Your task to perform on an android device: turn off sleep mode Image 0: 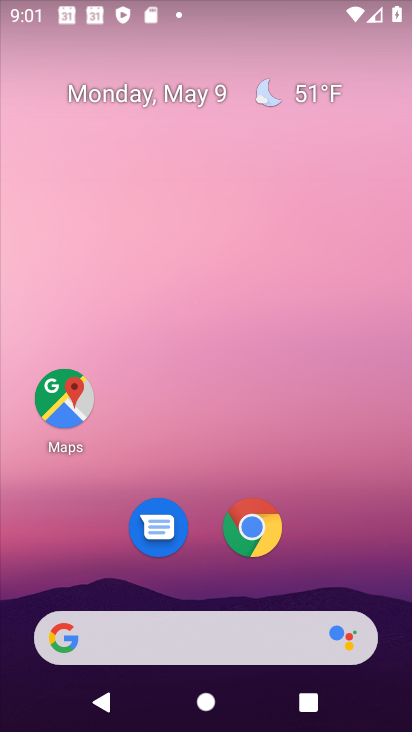
Step 0: drag from (210, 561) to (279, 49)
Your task to perform on an android device: turn off sleep mode Image 1: 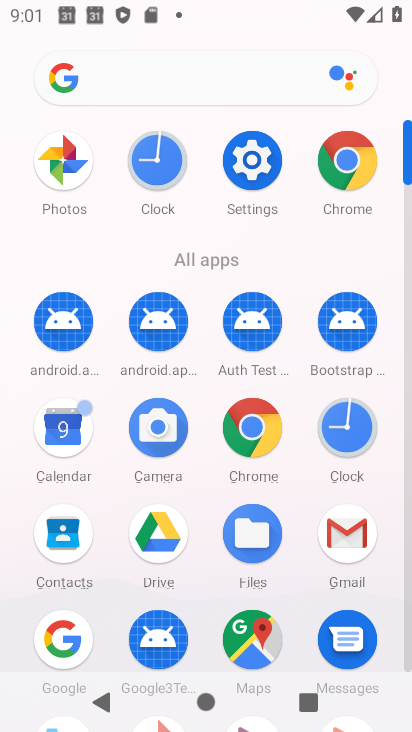
Step 1: click (261, 188)
Your task to perform on an android device: turn off sleep mode Image 2: 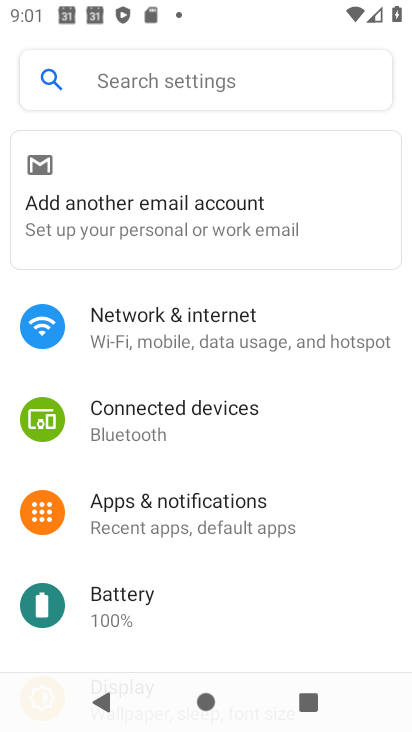
Step 2: click (261, 98)
Your task to perform on an android device: turn off sleep mode Image 3: 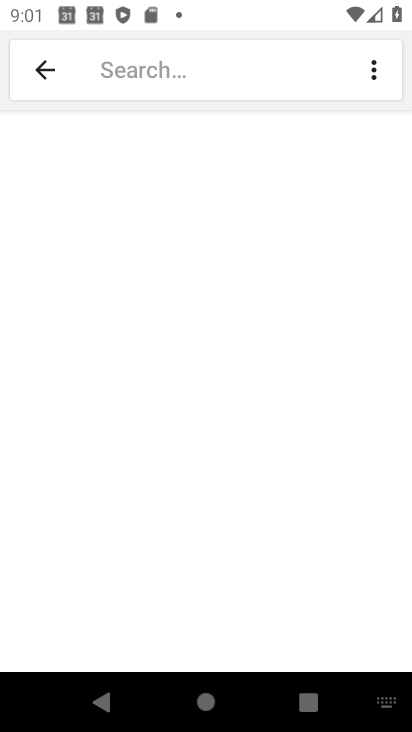
Step 3: type "sleep mode"
Your task to perform on an android device: turn off sleep mode Image 4: 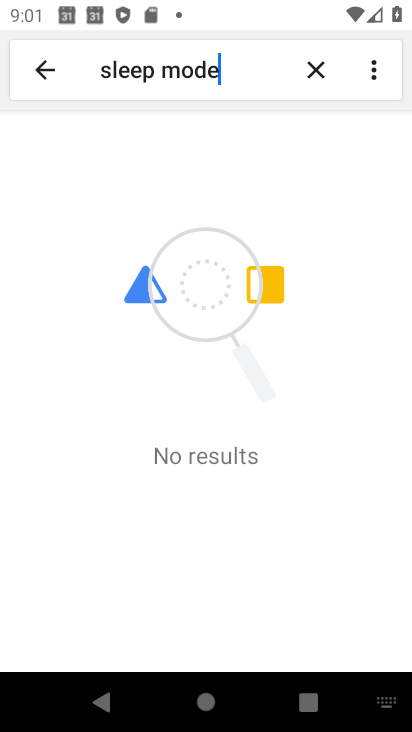
Step 4: task complete